Your task to perform on an android device: see sites visited before in the chrome app Image 0: 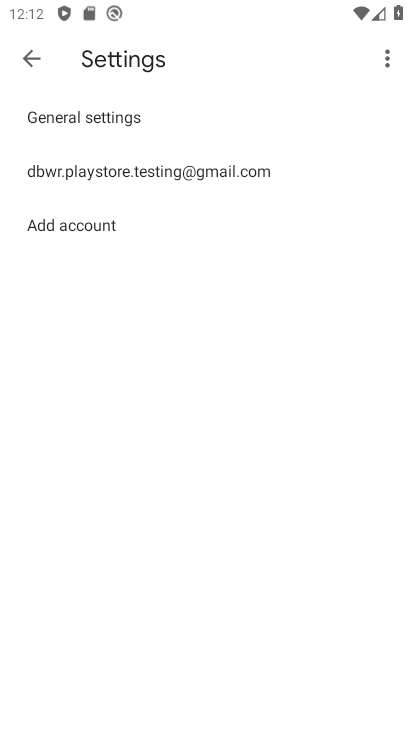
Step 0: press home button
Your task to perform on an android device: see sites visited before in the chrome app Image 1: 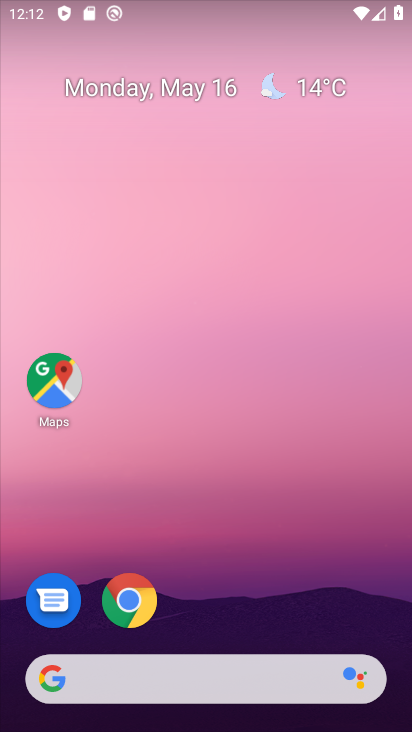
Step 1: click (127, 591)
Your task to perform on an android device: see sites visited before in the chrome app Image 2: 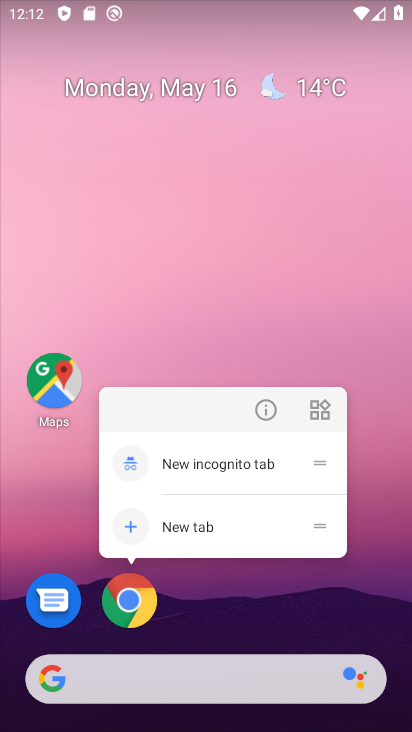
Step 2: click (123, 594)
Your task to perform on an android device: see sites visited before in the chrome app Image 3: 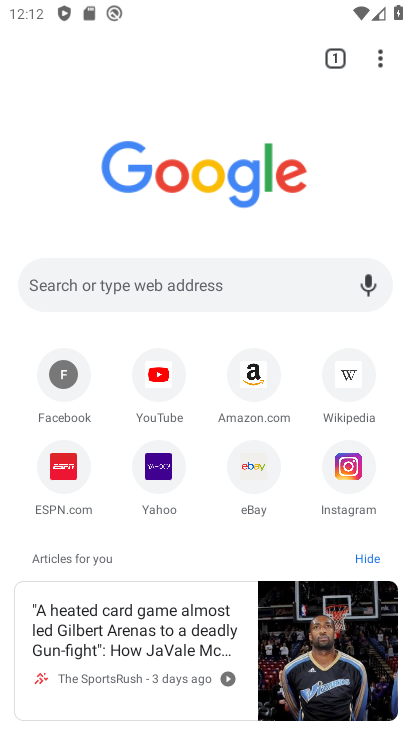
Step 3: task complete